Your task to perform on an android device: turn pop-ups on in chrome Image 0: 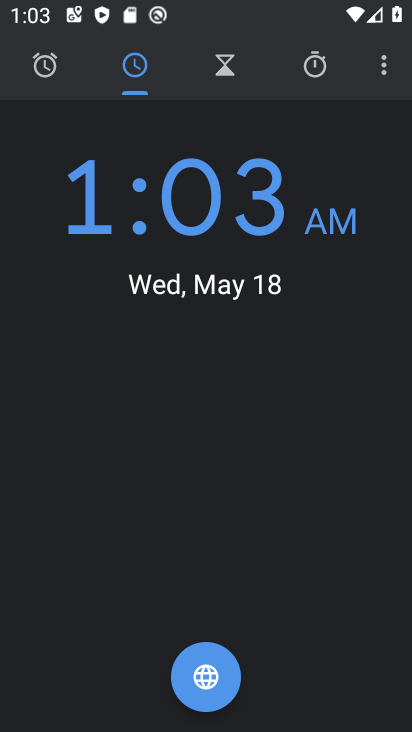
Step 0: press home button
Your task to perform on an android device: turn pop-ups on in chrome Image 1: 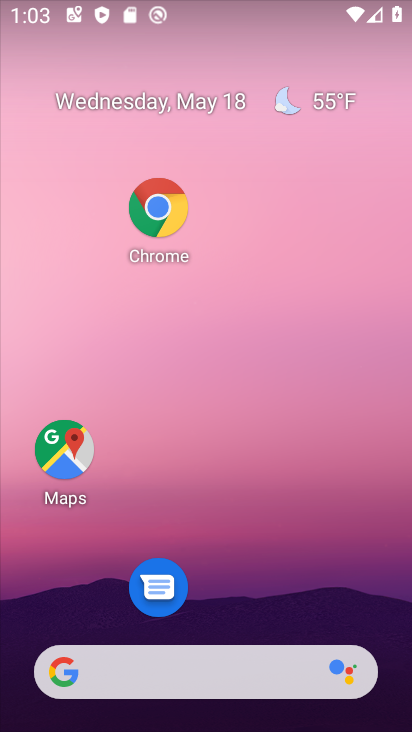
Step 1: click (160, 258)
Your task to perform on an android device: turn pop-ups on in chrome Image 2: 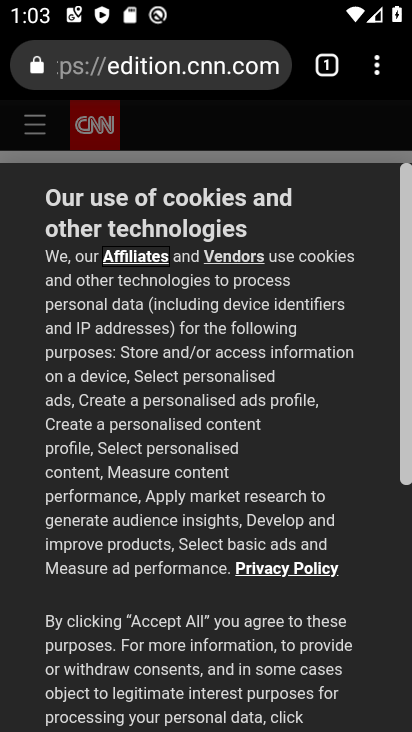
Step 2: click (379, 70)
Your task to perform on an android device: turn pop-ups on in chrome Image 3: 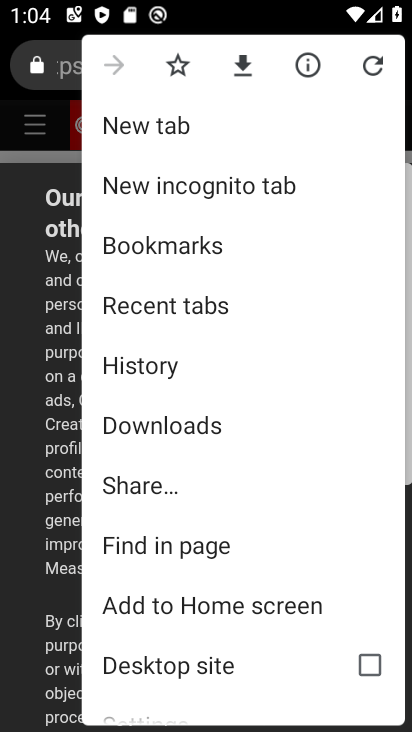
Step 3: drag from (229, 629) to (234, 262)
Your task to perform on an android device: turn pop-ups on in chrome Image 4: 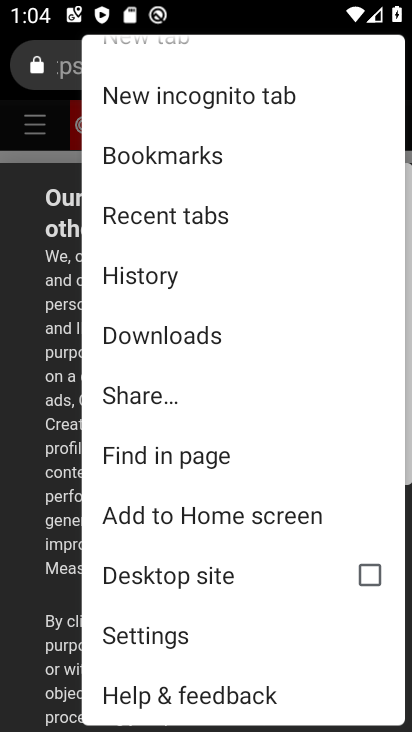
Step 4: click (164, 644)
Your task to perform on an android device: turn pop-ups on in chrome Image 5: 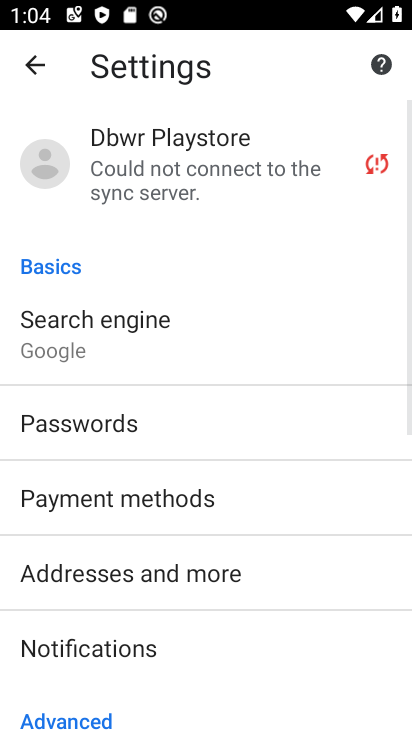
Step 5: drag from (157, 657) to (174, 289)
Your task to perform on an android device: turn pop-ups on in chrome Image 6: 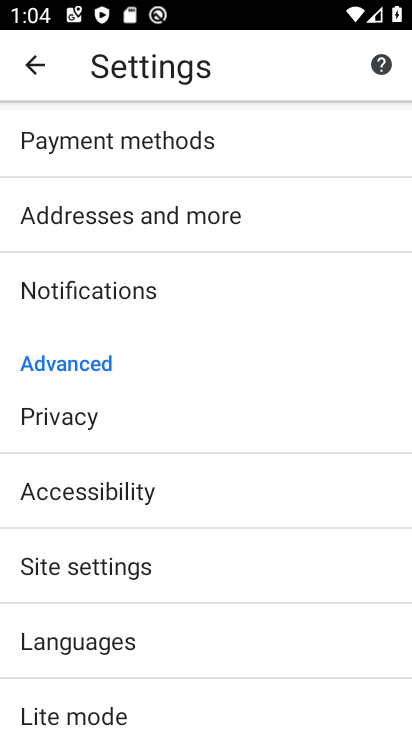
Step 6: drag from (129, 687) to (180, 441)
Your task to perform on an android device: turn pop-ups on in chrome Image 7: 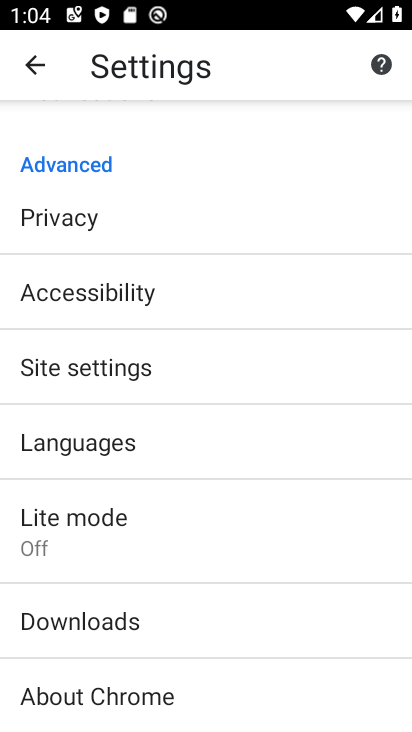
Step 7: click (92, 368)
Your task to perform on an android device: turn pop-ups on in chrome Image 8: 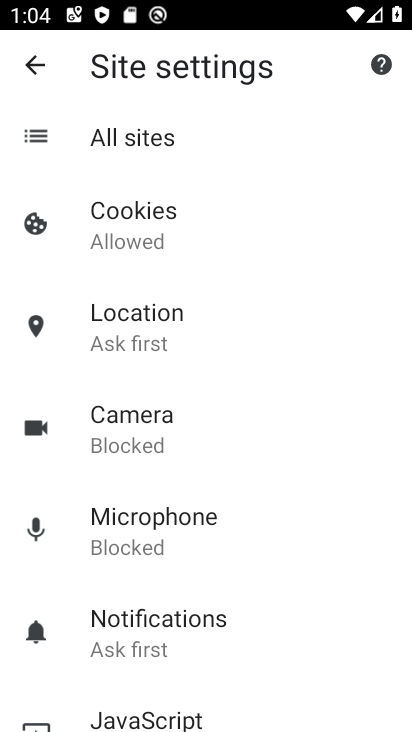
Step 8: click (182, 437)
Your task to perform on an android device: turn pop-ups on in chrome Image 9: 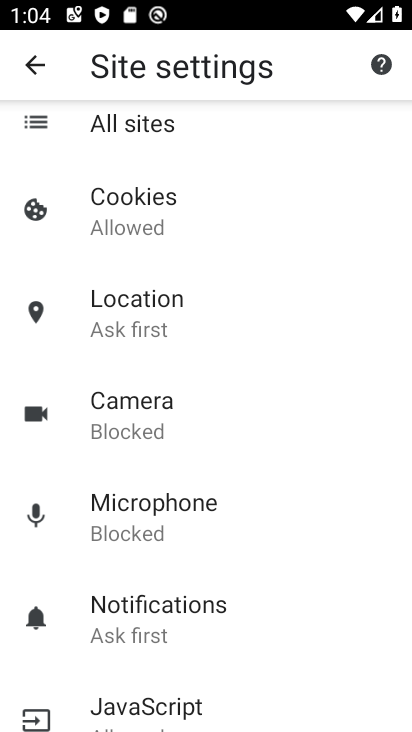
Step 9: drag from (203, 674) to (224, 279)
Your task to perform on an android device: turn pop-ups on in chrome Image 10: 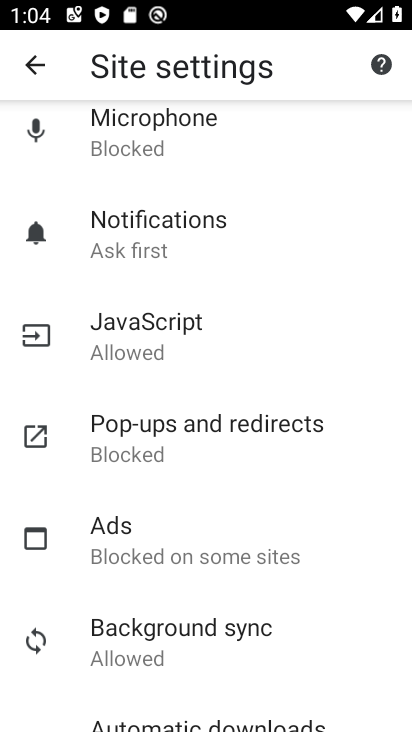
Step 10: click (175, 431)
Your task to perform on an android device: turn pop-ups on in chrome Image 11: 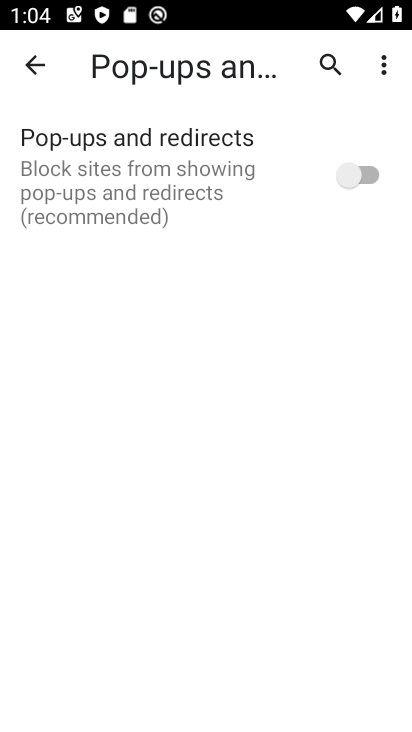
Step 11: click (372, 184)
Your task to perform on an android device: turn pop-ups on in chrome Image 12: 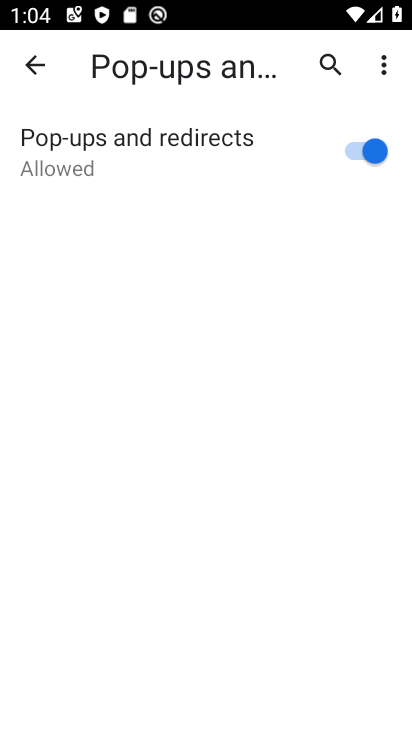
Step 12: task complete